Your task to perform on an android device: set the timer Image 0: 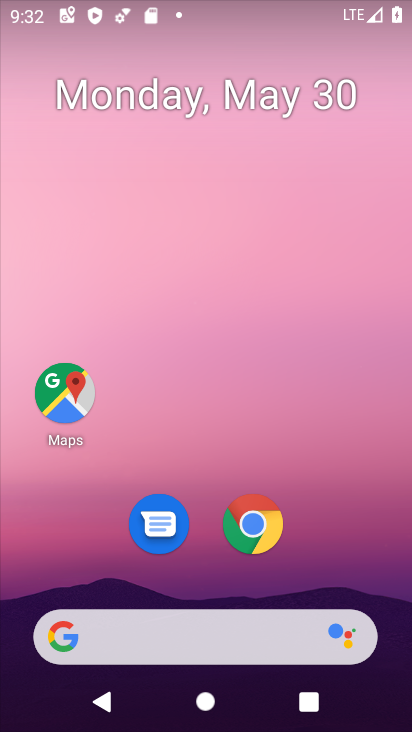
Step 0: drag from (313, 562) to (285, 23)
Your task to perform on an android device: set the timer Image 1: 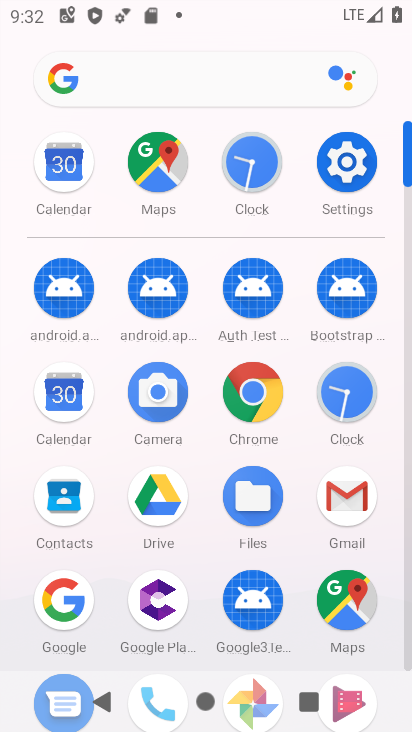
Step 1: click (262, 170)
Your task to perform on an android device: set the timer Image 2: 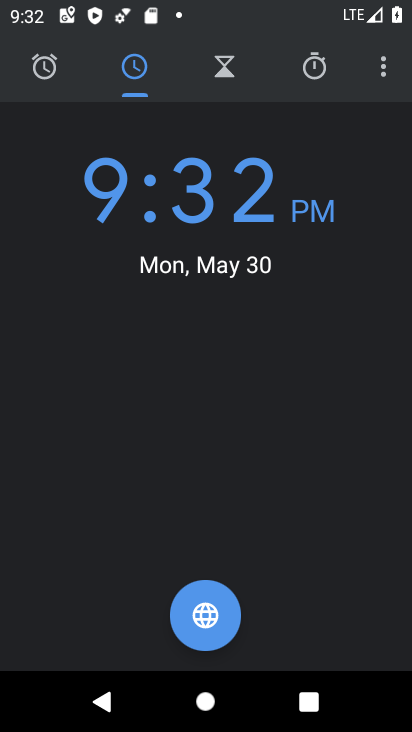
Step 2: click (221, 77)
Your task to perform on an android device: set the timer Image 3: 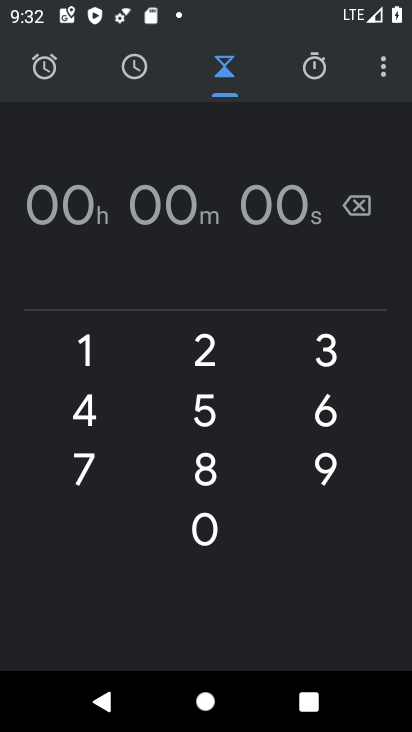
Step 3: click (92, 348)
Your task to perform on an android device: set the timer Image 4: 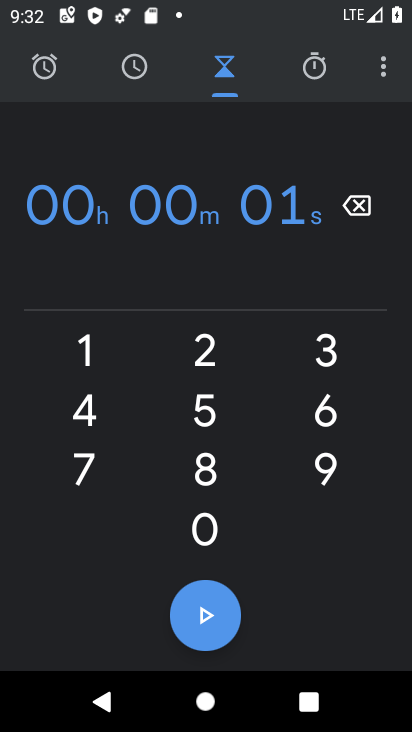
Step 4: click (95, 427)
Your task to perform on an android device: set the timer Image 5: 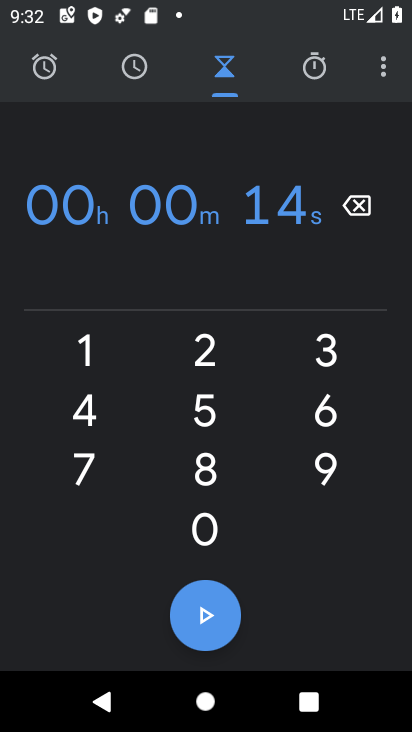
Step 5: task complete